Your task to perform on an android device: Go to CNN.com Image 0: 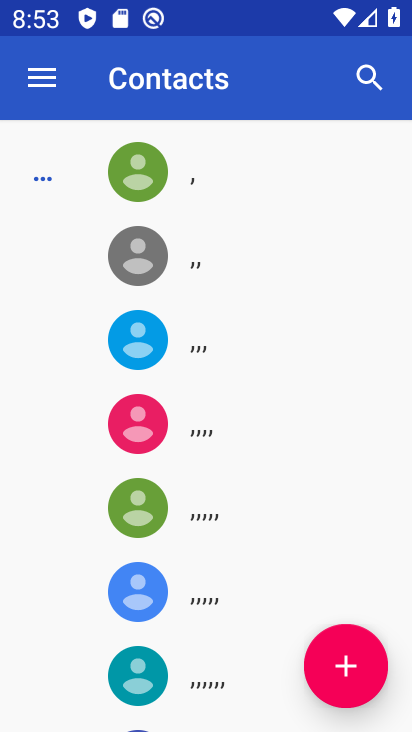
Step 0: press home button
Your task to perform on an android device: Go to CNN.com Image 1: 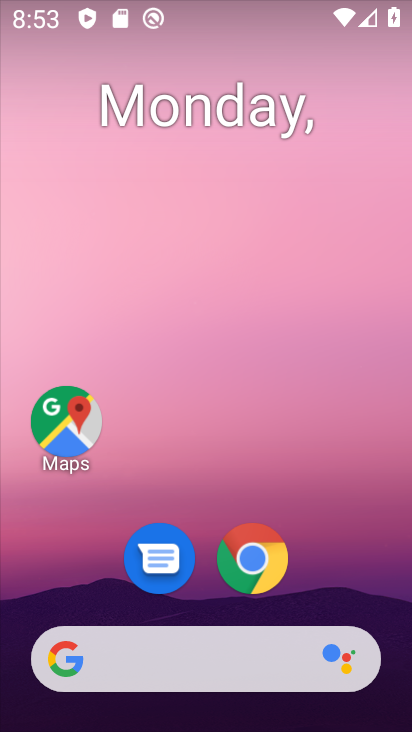
Step 1: click (258, 556)
Your task to perform on an android device: Go to CNN.com Image 2: 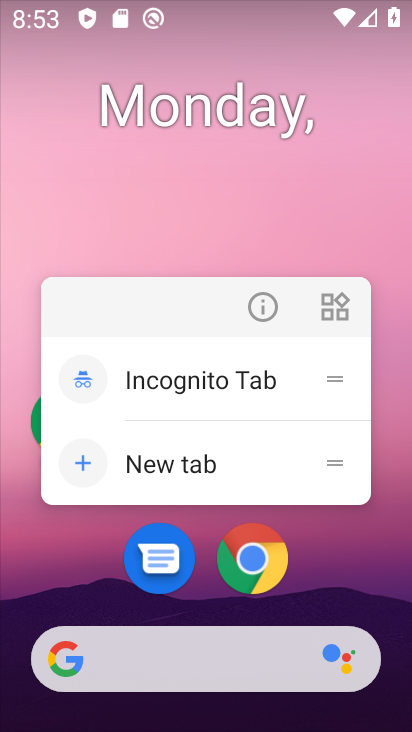
Step 2: click (257, 543)
Your task to perform on an android device: Go to CNN.com Image 3: 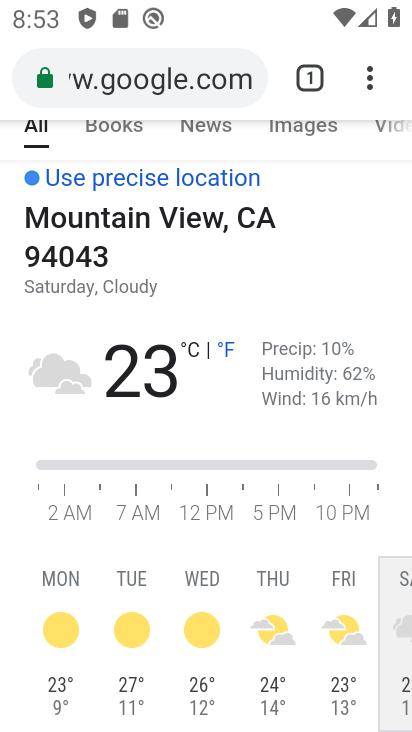
Step 3: click (158, 84)
Your task to perform on an android device: Go to CNN.com Image 4: 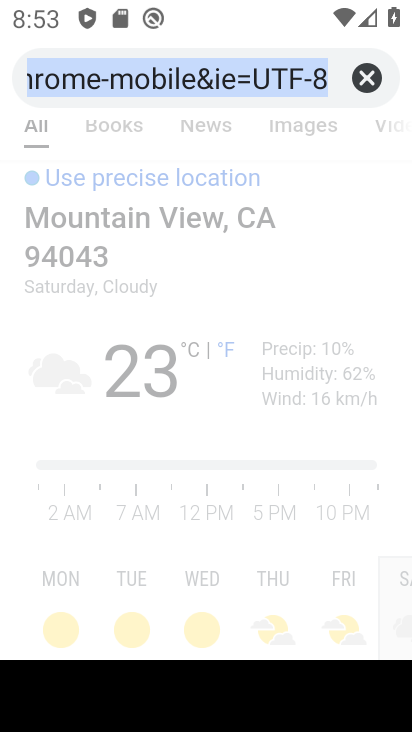
Step 4: click (368, 67)
Your task to perform on an android device: Go to CNN.com Image 5: 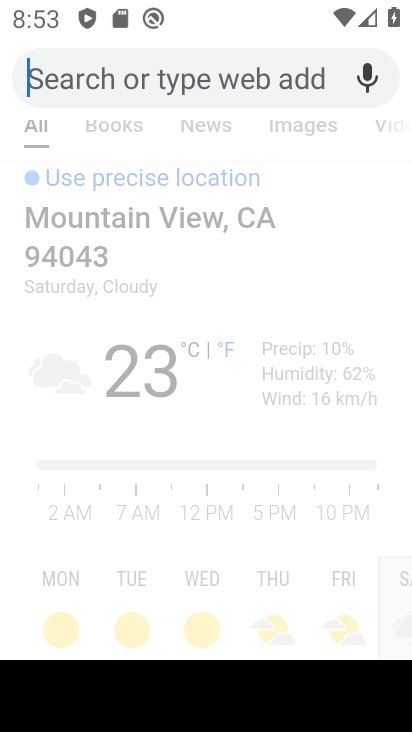
Step 5: type "CNN.com"
Your task to perform on an android device: Go to CNN.com Image 6: 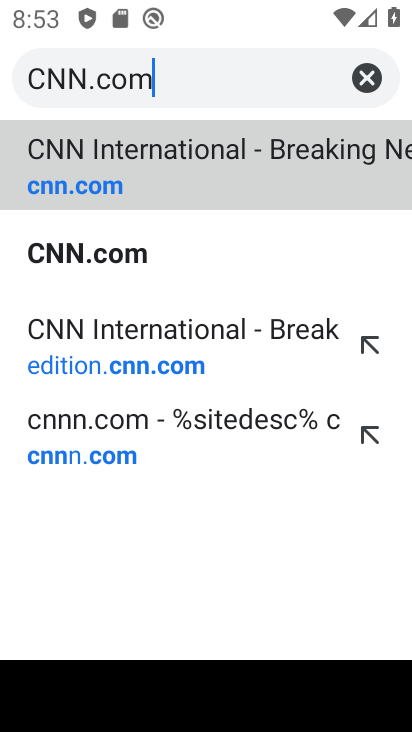
Step 6: click (76, 183)
Your task to perform on an android device: Go to CNN.com Image 7: 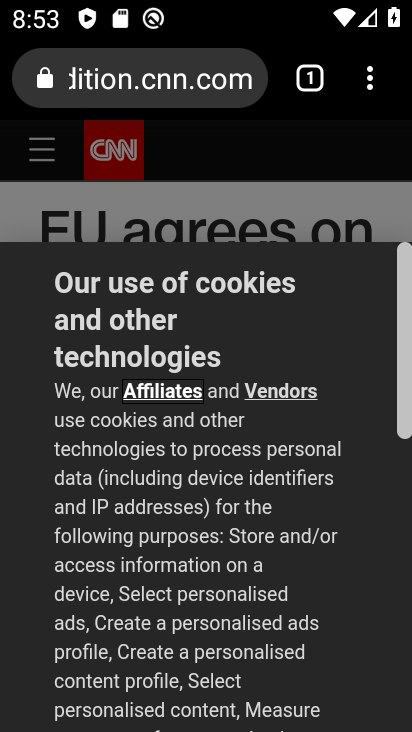
Step 7: task complete